Your task to perform on an android device: Open the map Image 0: 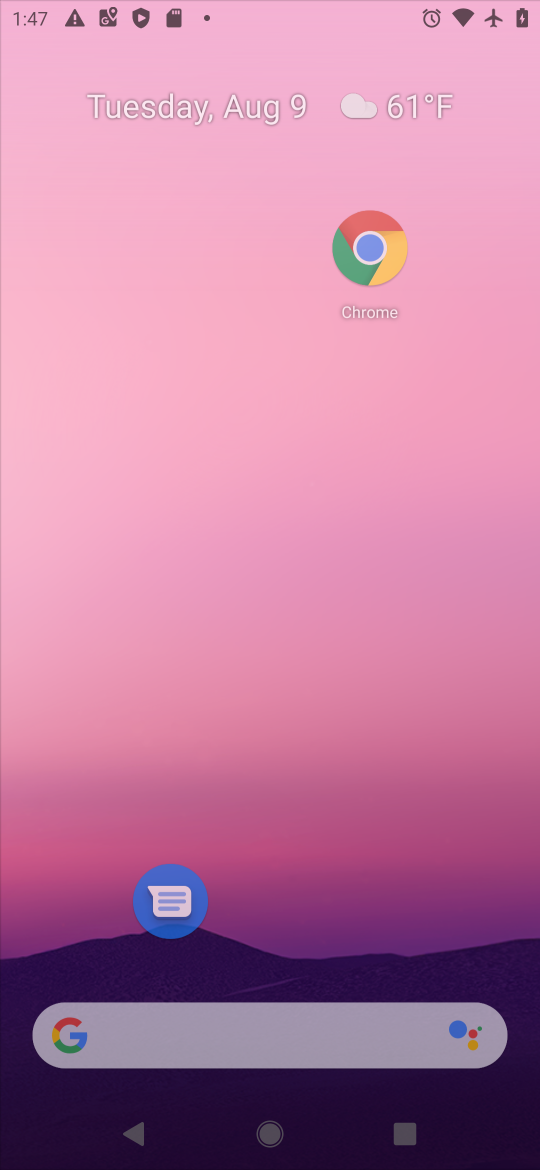
Step 0: press home button
Your task to perform on an android device: Open the map Image 1: 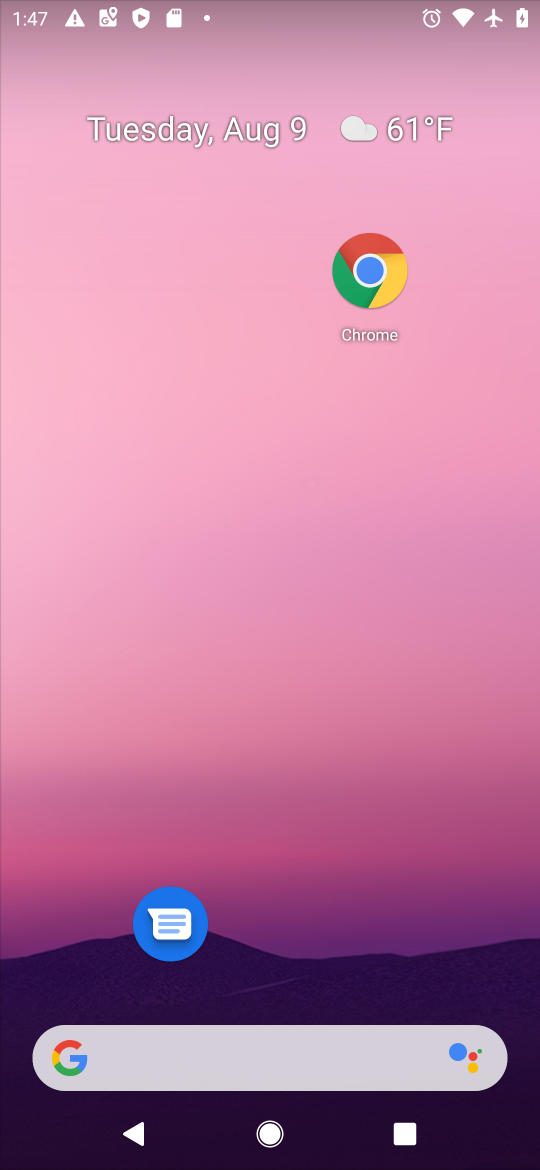
Step 1: drag from (355, 993) to (268, 237)
Your task to perform on an android device: Open the map Image 2: 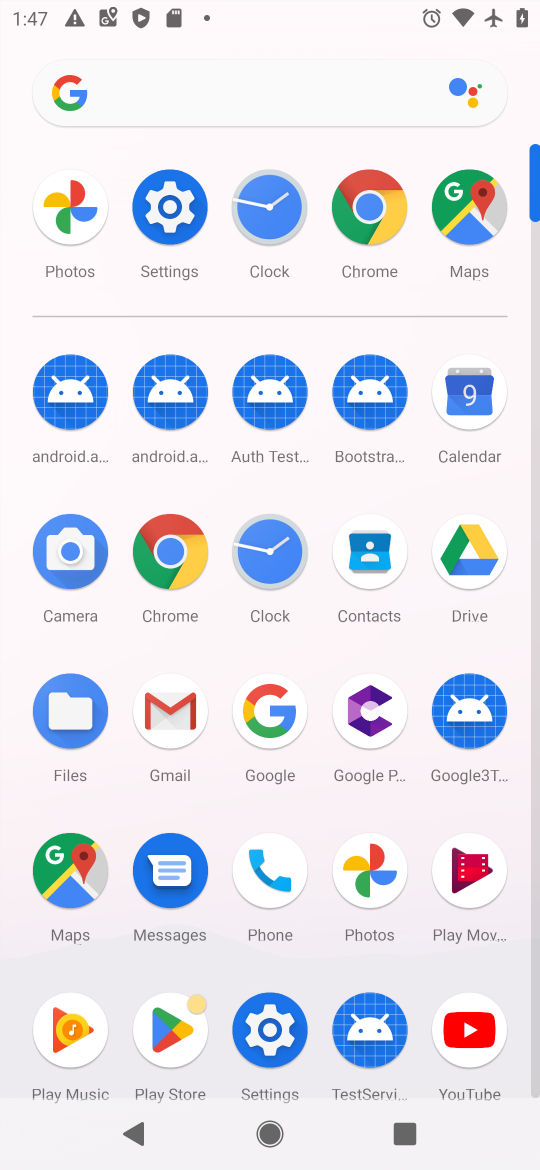
Step 2: click (487, 250)
Your task to perform on an android device: Open the map Image 3: 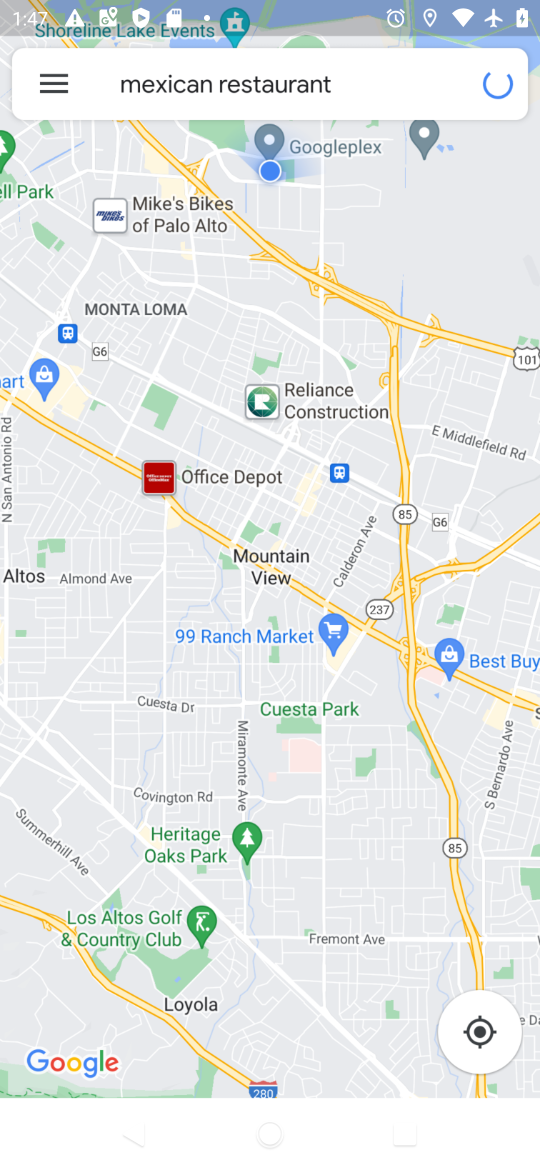
Step 3: task complete